Your task to perform on an android device: Open the phone app and click the voicemail tab. Image 0: 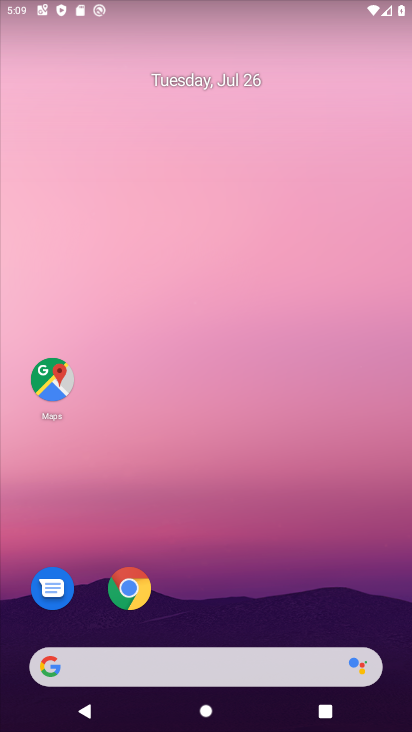
Step 0: drag from (185, 634) to (281, 228)
Your task to perform on an android device: Open the phone app and click the voicemail tab. Image 1: 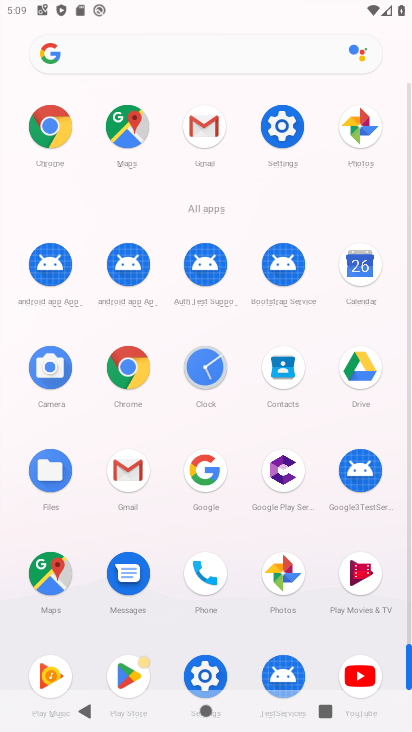
Step 1: click (205, 575)
Your task to perform on an android device: Open the phone app and click the voicemail tab. Image 2: 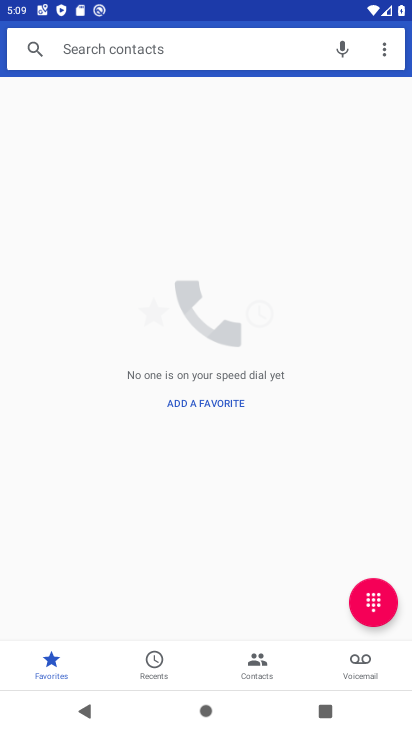
Step 2: click (366, 665)
Your task to perform on an android device: Open the phone app and click the voicemail tab. Image 3: 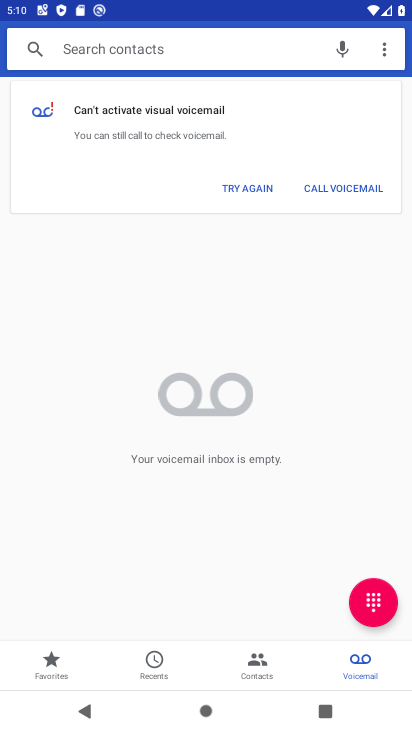
Step 3: task complete